Your task to perform on an android device: What is the recent news? Image 0: 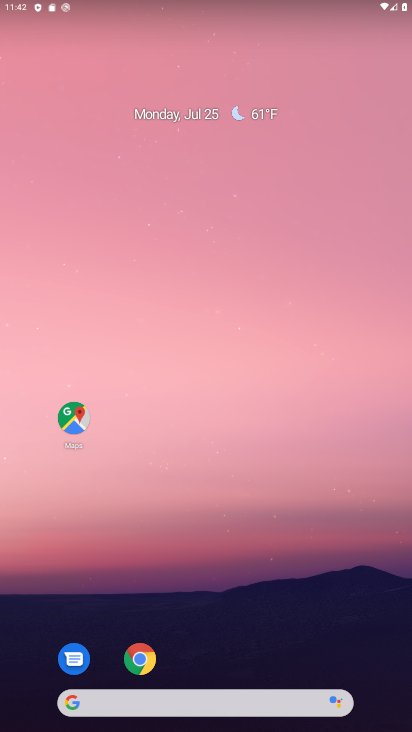
Step 0: drag from (1, 247) to (409, 251)
Your task to perform on an android device: What is the recent news? Image 1: 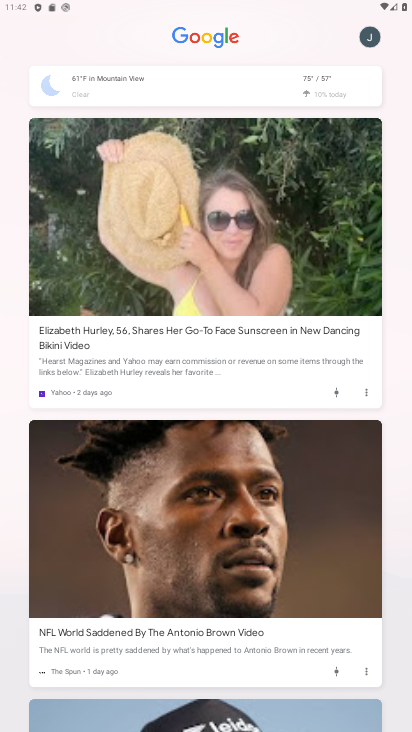
Step 1: task complete